Your task to perform on an android device: Where can I buy a nice beach umbrella? Image 0: 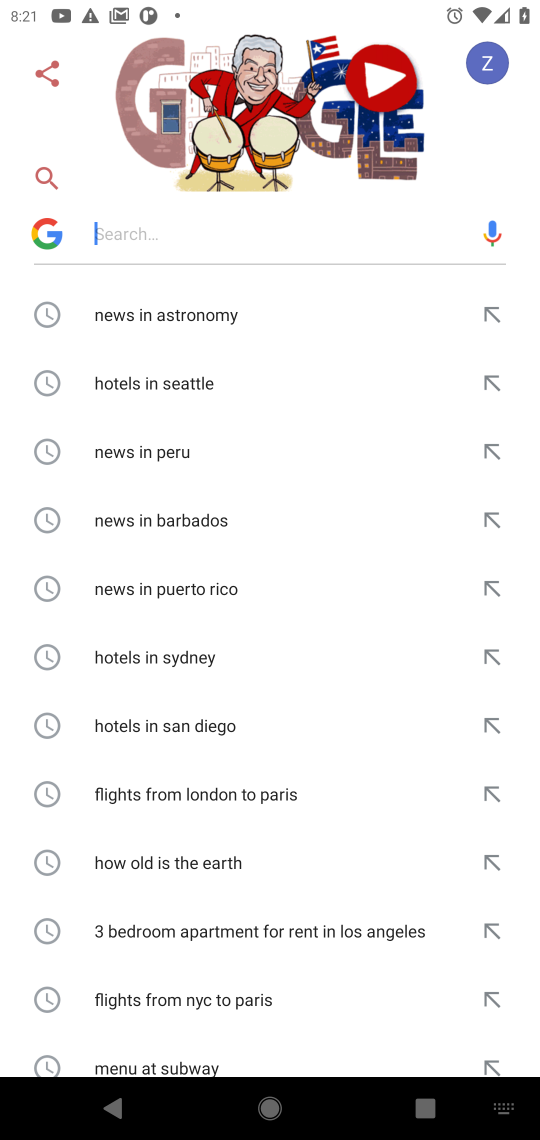
Step 0: press home button
Your task to perform on an android device: Where can I buy a nice beach umbrella? Image 1: 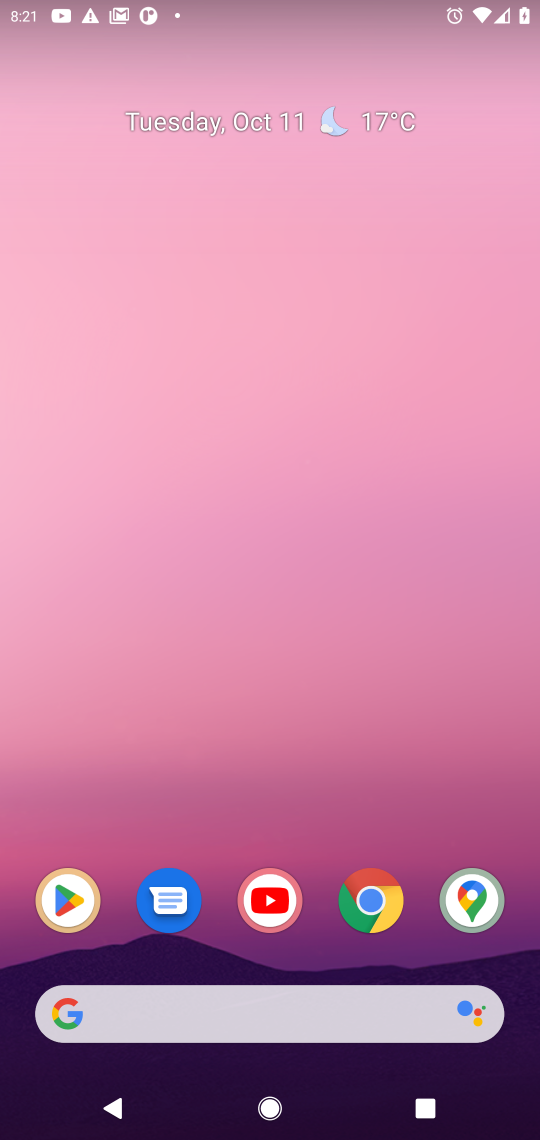
Step 1: click (370, 905)
Your task to perform on an android device: Where can I buy a nice beach umbrella? Image 2: 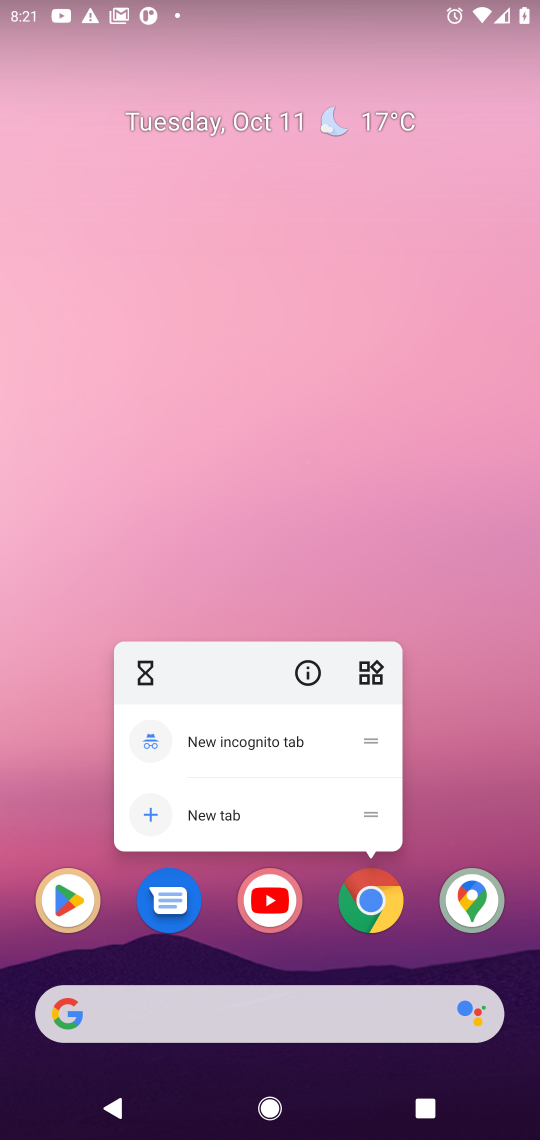
Step 2: click (370, 906)
Your task to perform on an android device: Where can I buy a nice beach umbrella? Image 3: 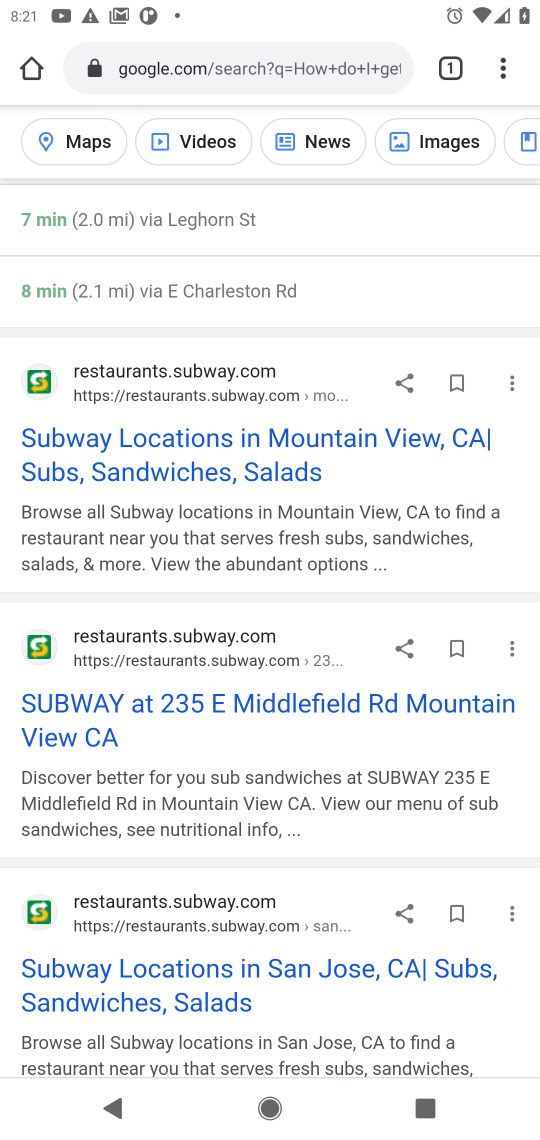
Step 3: click (315, 50)
Your task to perform on an android device: Where can I buy a nice beach umbrella? Image 4: 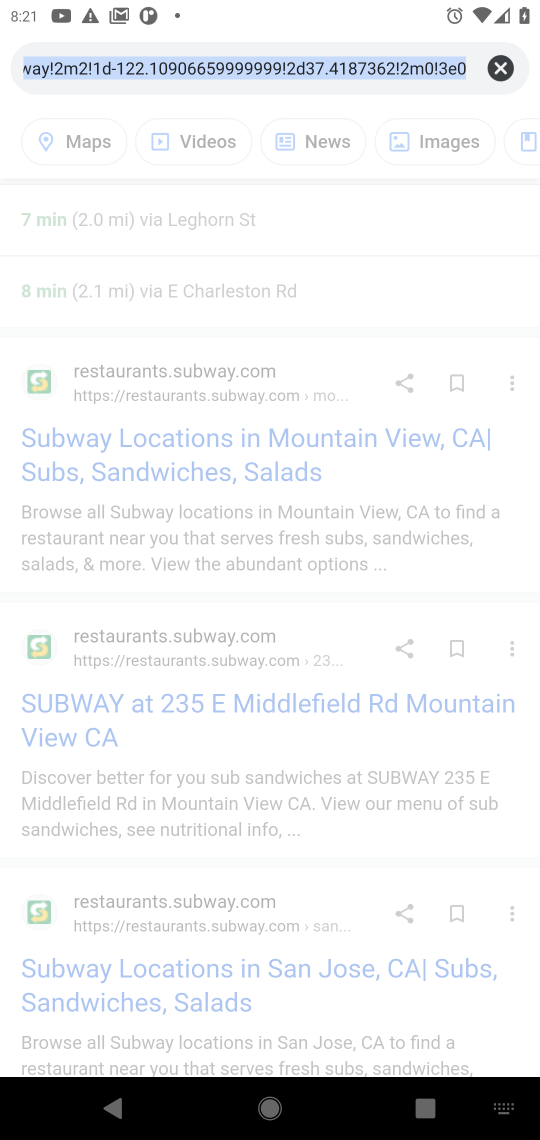
Step 4: click (507, 58)
Your task to perform on an android device: Where can I buy a nice beach umbrella? Image 5: 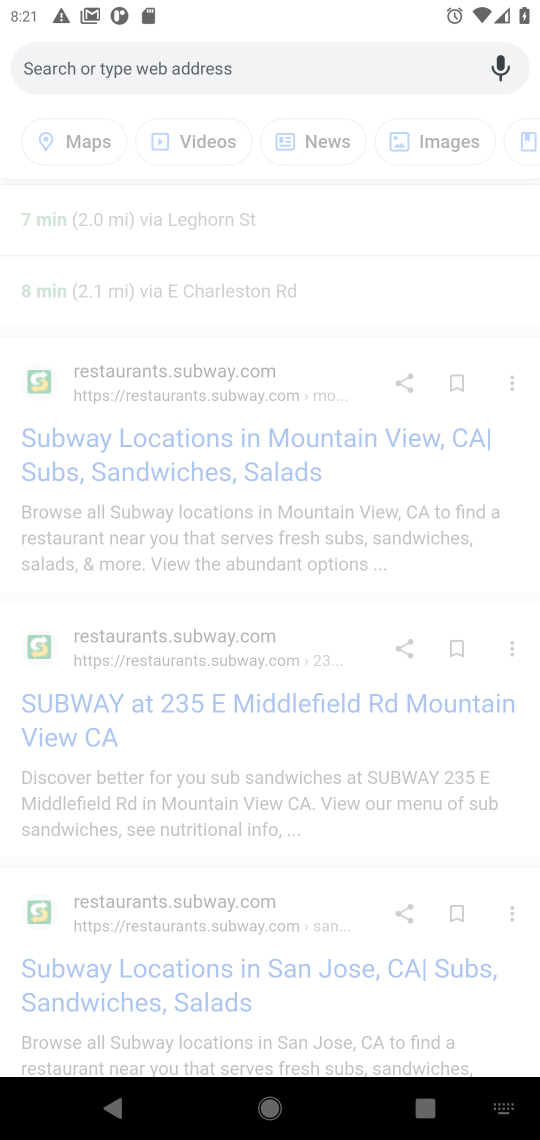
Step 5: type "Where can I buy a nice beach umbrella"
Your task to perform on an android device: Where can I buy a nice beach umbrella? Image 6: 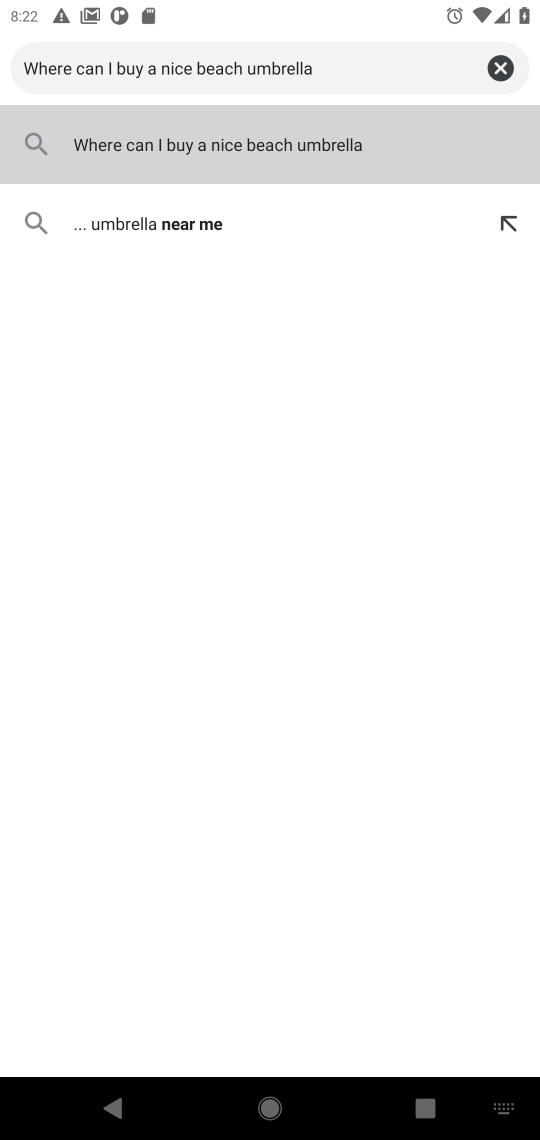
Step 6: press enter
Your task to perform on an android device: Where can I buy a nice beach umbrella? Image 7: 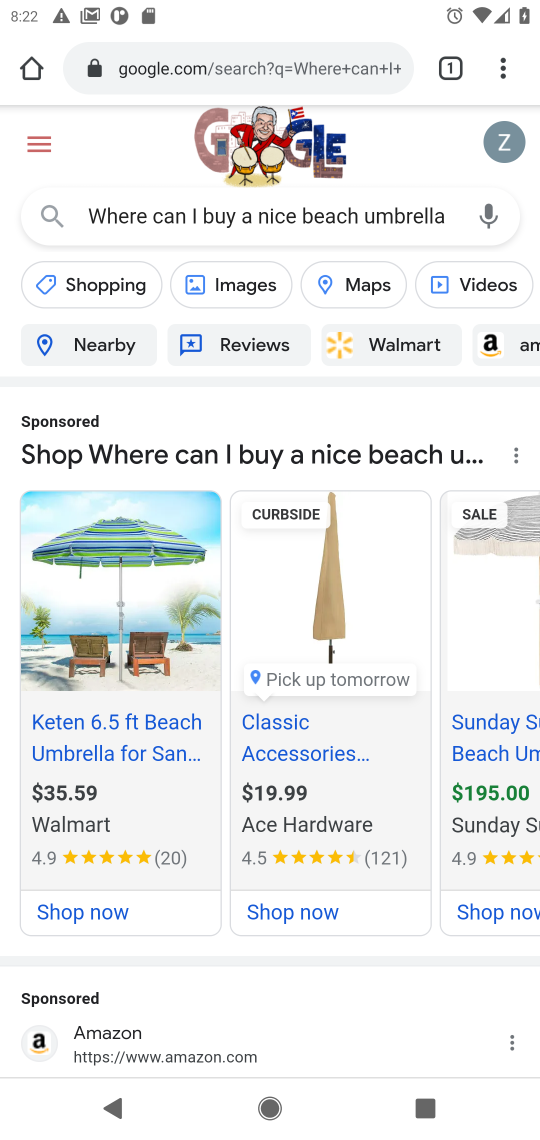
Step 7: drag from (287, 1001) to (360, 268)
Your task to perform on an android device: Where can I buy a nice beach umbrella? Image 8: 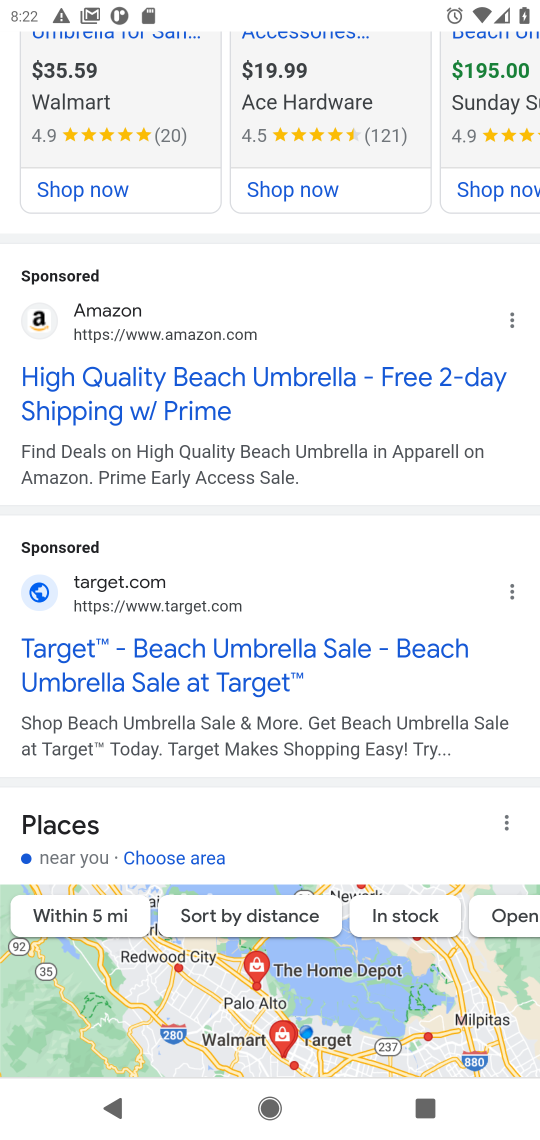
Step 8: drag from (233, 880) to (378, 289)
Your task to perform on an android device: Where can I buy a nice beach umbrella? Image 9: 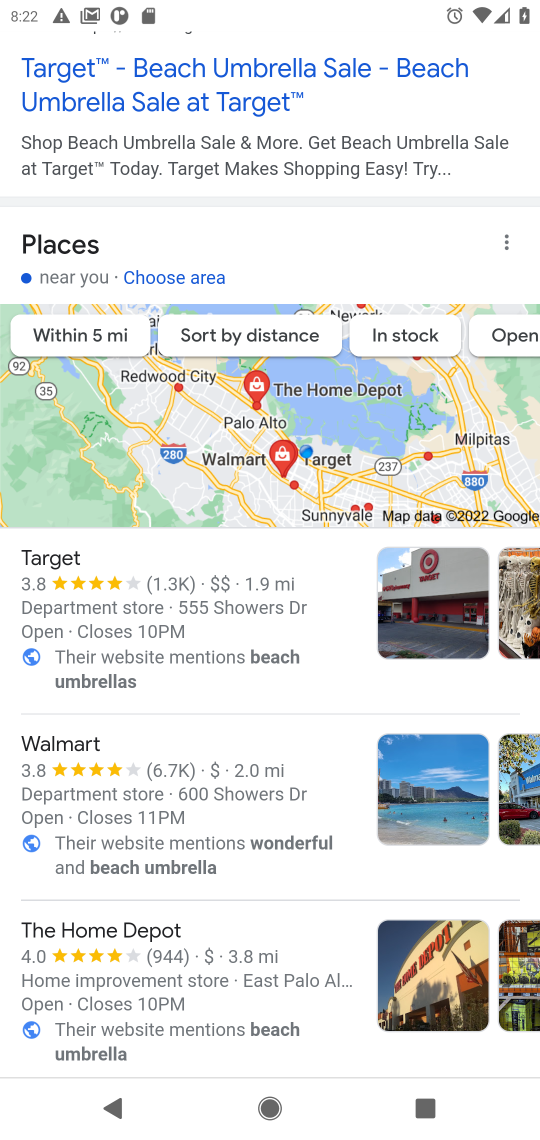
Step 9: drag from (193, 855) to (318, 316)
Your task to perform on an android device: Where can I buy a nice beach umbrella? Image 10: 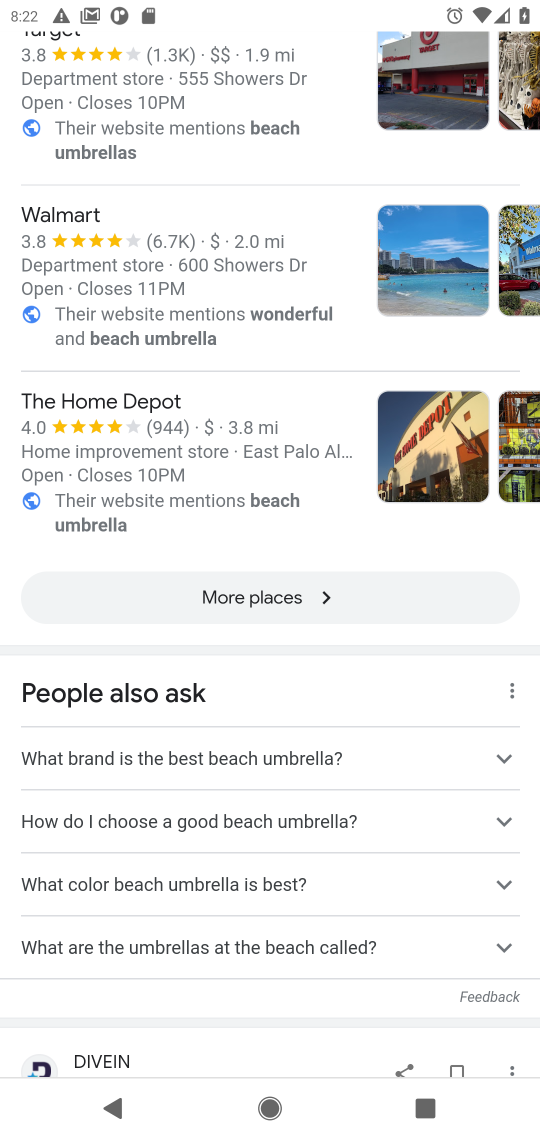
Step 10: drag from (186, 846) to (286, 310)
Your task to perform on an android device: Where can I buy a nice beach umbrella? Image 11: 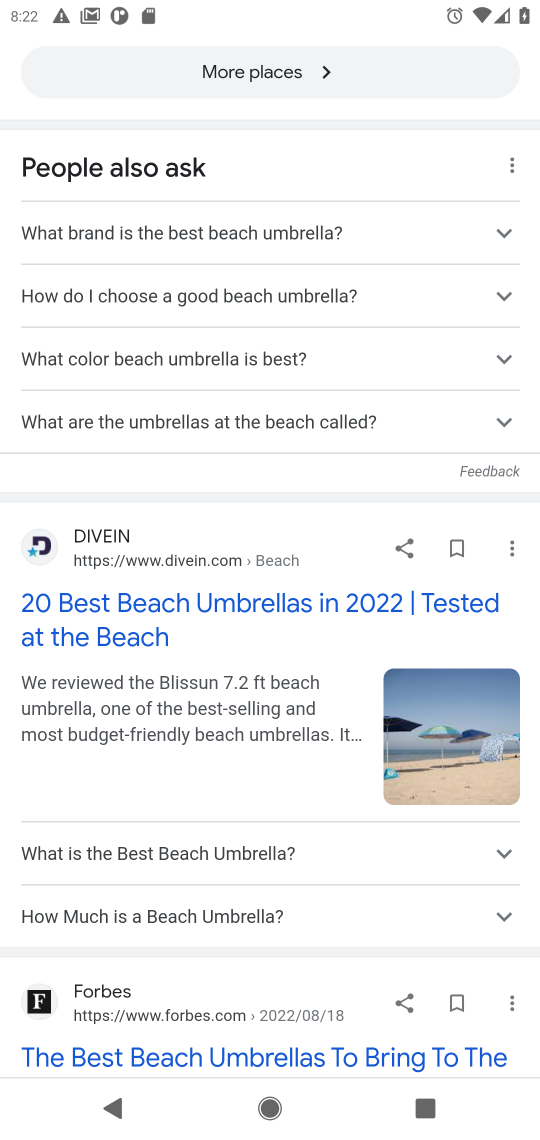
Step 11: click (314, 599)
Your task to perform on an android device: Where can I buy a nice beach umbrella? Image 12: 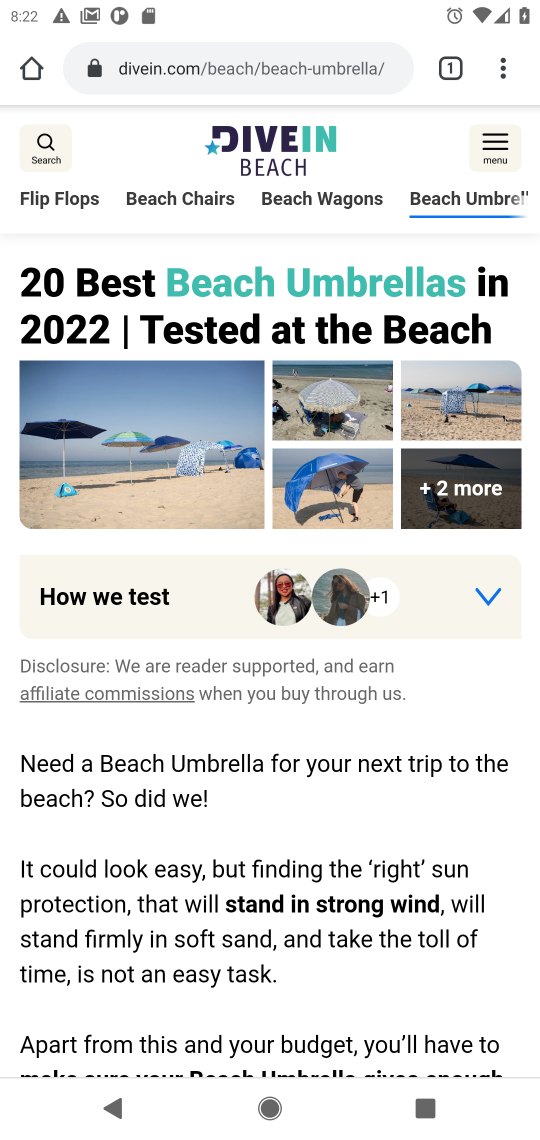
Step 12: drag from (372, 115) to (392, 733)
Your task to perform on an android device: Where can I buy a nice beach umbrella? Image 13: 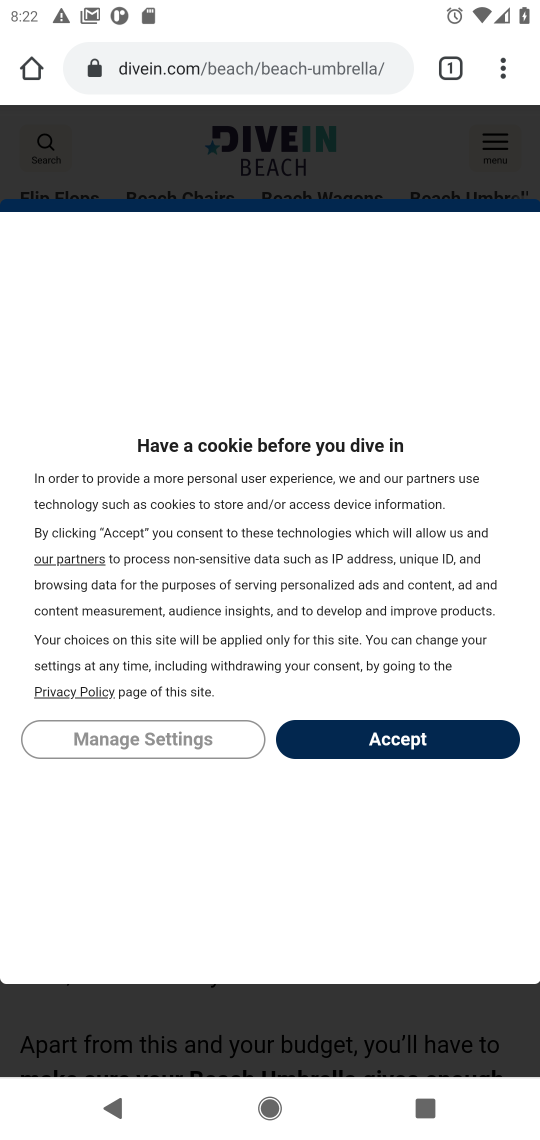
Step 13: click (409, 741)
Your task to perform on an android device: Where can I buy a nice beach umbrella? Image 14: 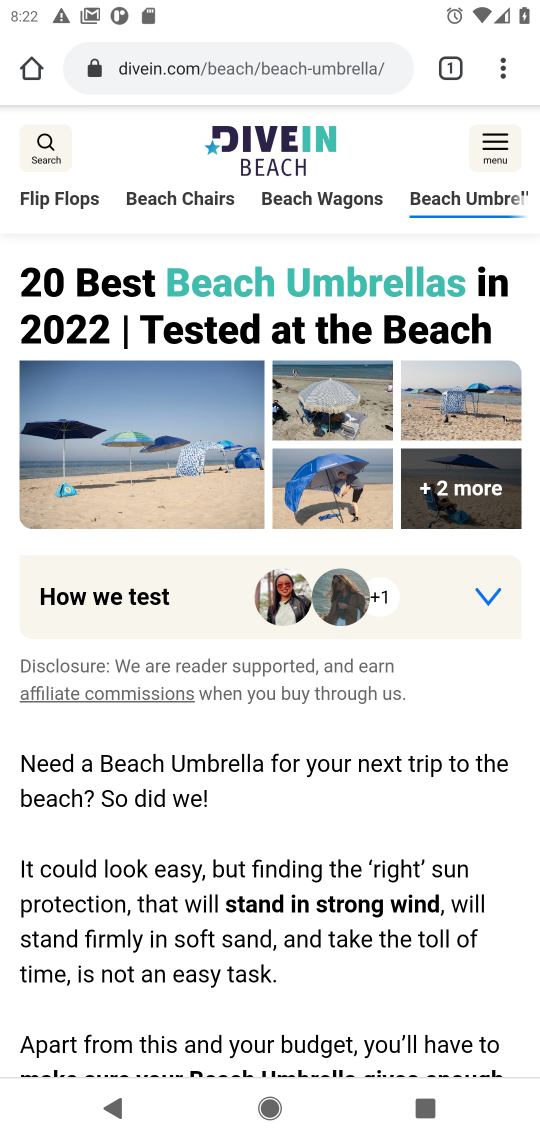
Step 14: task complete